Your task to perform on an android device: move an email to a new category in the gmail app Image 0: 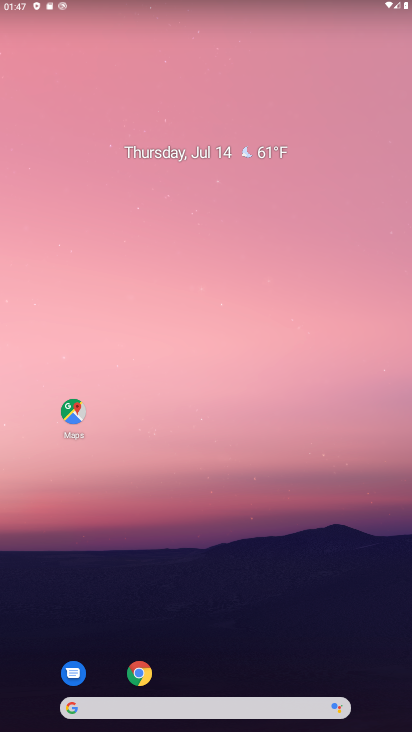
Step 0: drag from (299, 650) to (265, 114)
Your task to perform on an android device: move an email to a new category in the gmail app Image 1: 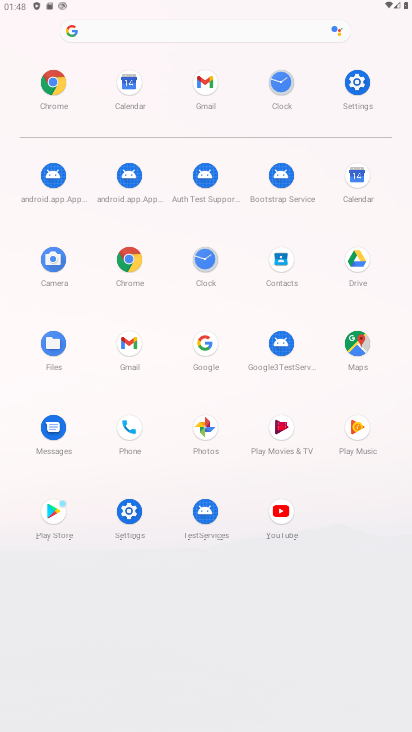
Step 1: click (206, 102)
Your task to perform on an android device: move an email to a new category in the gmail app Image 2: 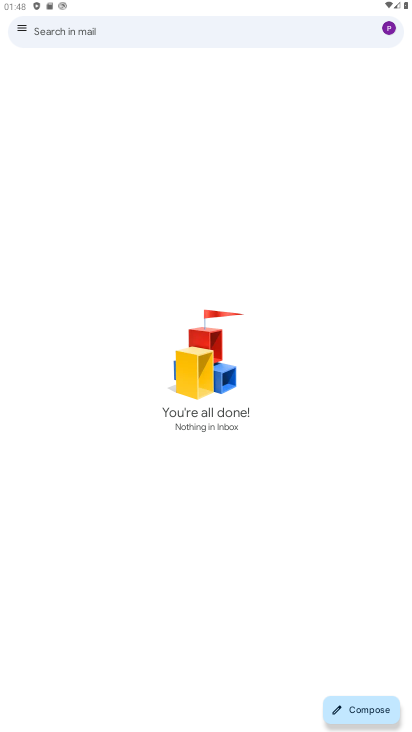
Step 2: click (14, 41)
Your task to perform on an android device: move an email to a new category in the gmail app Image 3: 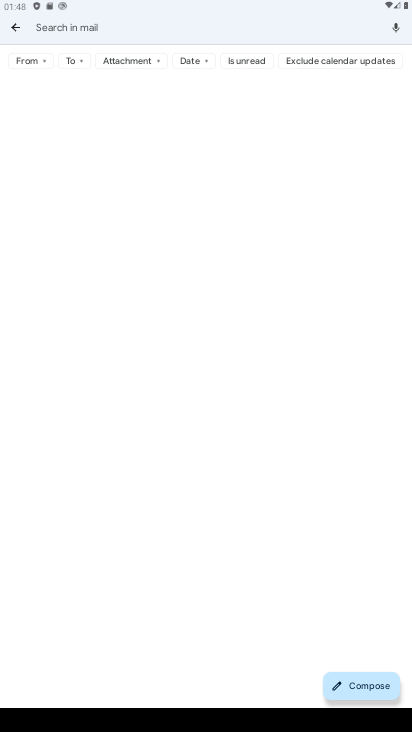
Step 3: click (14, 29)
Your task to perform on an android device: move an email to a new category in the gmail app Image 4: 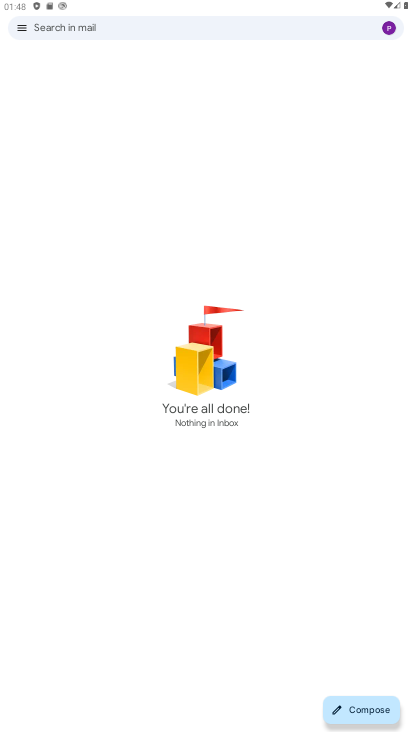
Step 4: task complete